Your task to perform on an android device: turn off translation in the chrome app Image 0: 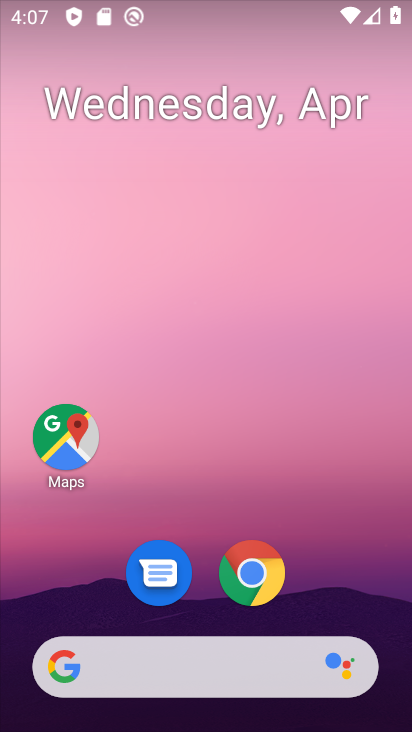
Step 0: click (255, 565)
Your task to perform on an android device: turn off translation in the chrome app Image 1: 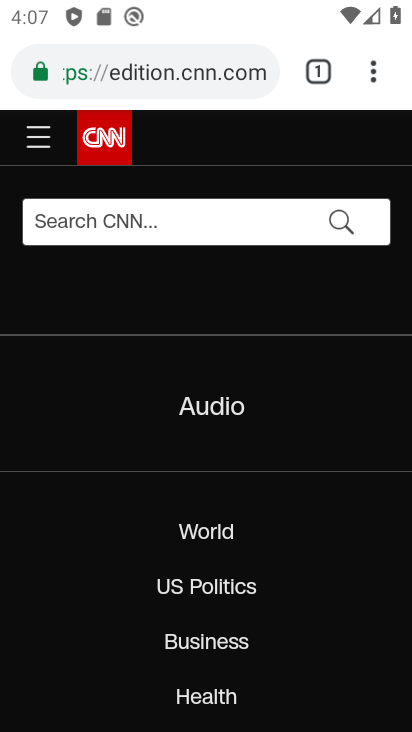
Step 1: click (373, 74)
Your task to perform on an android device: turn off translation in the chrome app Image 2: 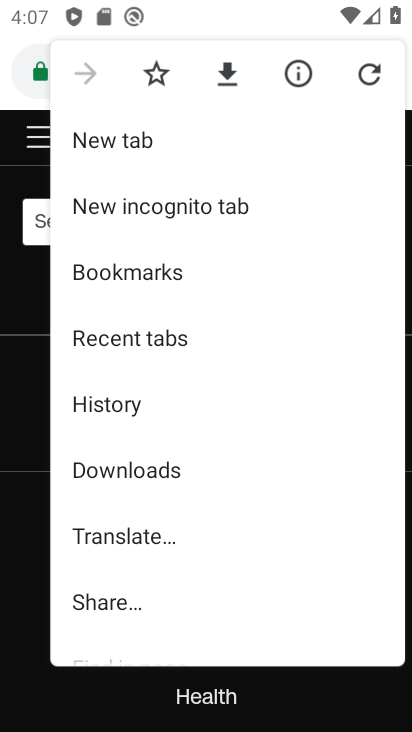
Step 2: drag from (201, 498) to (227, 180)
Your task to perform on an android device: turn off translation in the chrome app Image 3: 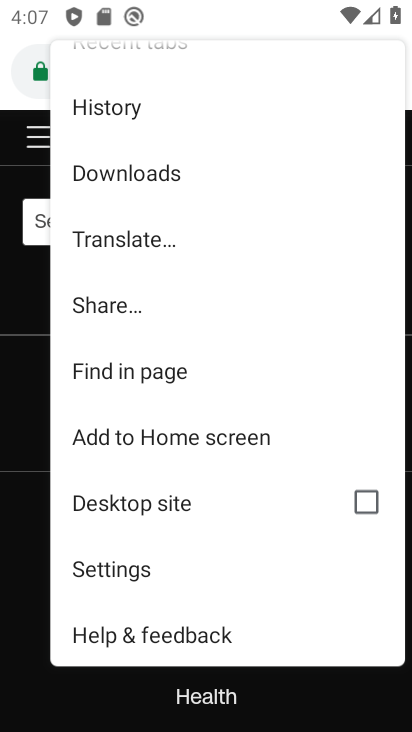
Step 3: click (119, 574)
Your task to perform on an android device: turn off translation in the chrome app Image 4: 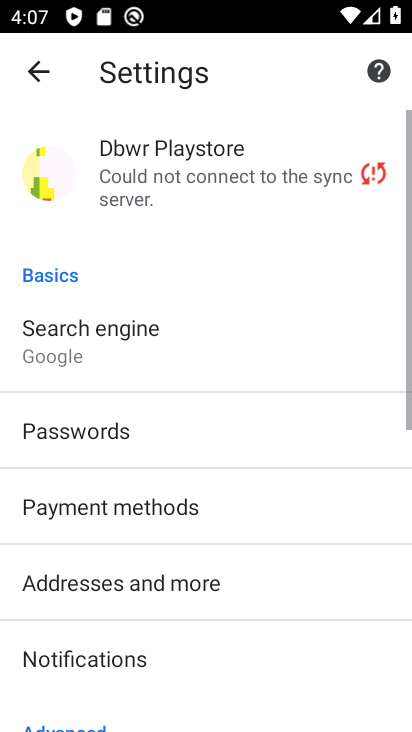
Step 4: drag from (210, 633) to (184, 262)
Your task to perform on an android device: turn off translation in the chrome app Image 5: 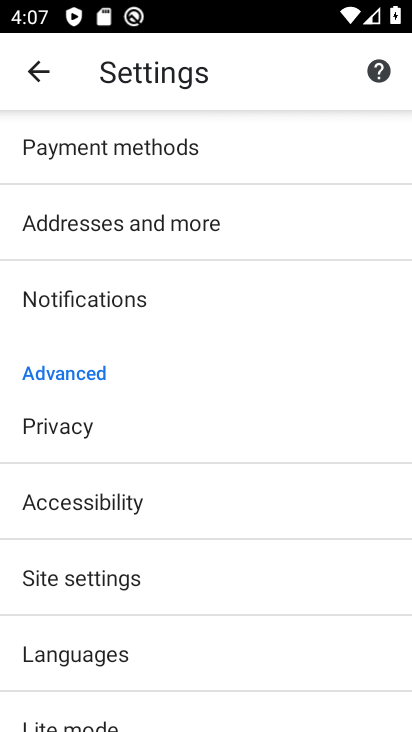
Step 5: click (71, 656)
Your task to perform on an android device: turn off translation in the chrome app Image 6: 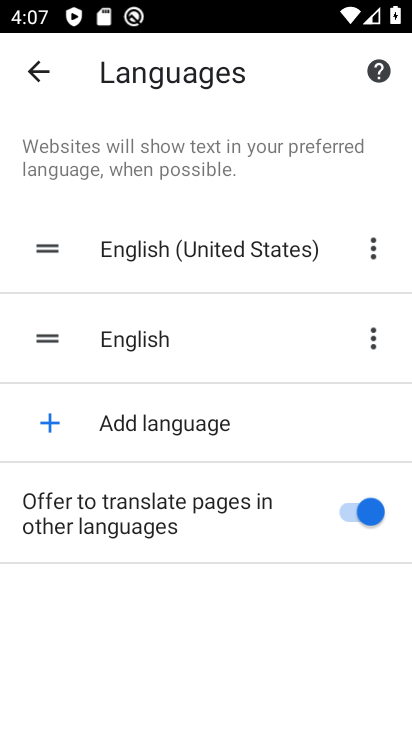
Step 6: click (373, 516)
Your task to perform on an android device: turn off translation in the chrome app Image 7: 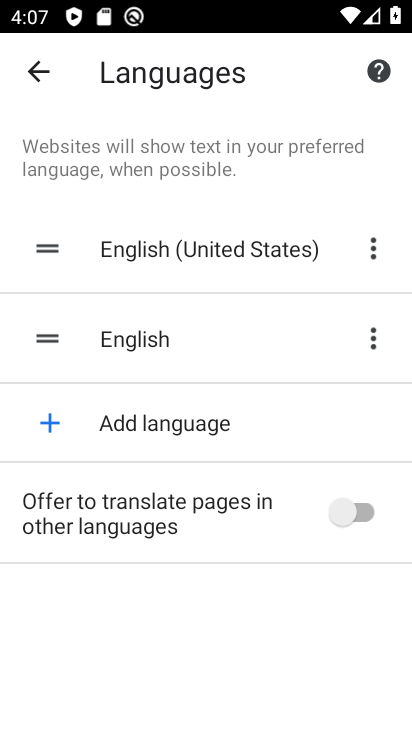
Step 7: task complete